Your task to perform on an android device: Go to wifi settings Image 0: 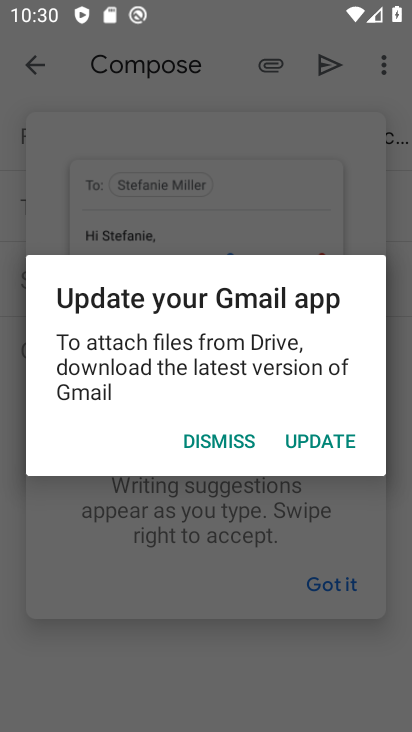
Step 0: click (195, 445)
Your task to perform on an android device: Go to wifi settings Image 1: 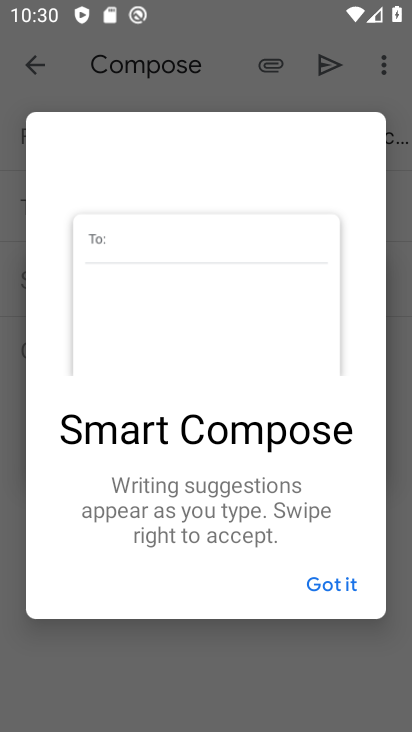
Step 1: click (335, 574)
Your task to perform on an android device: Go to wifi settings Image 2: 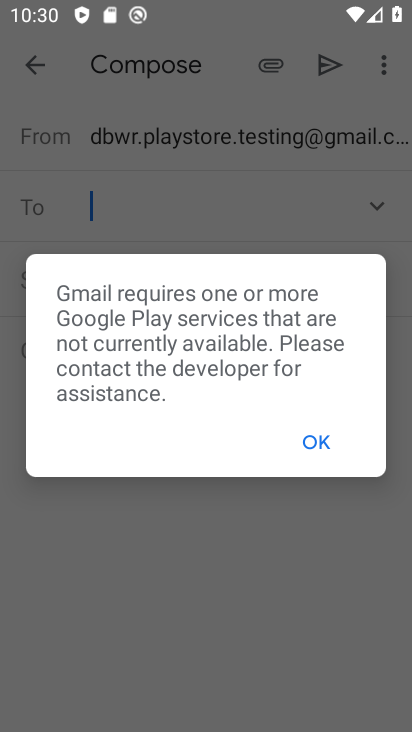
Step 2: click (309, 433)
Your task to perform on an android device: Go to wifi settings Image 3: 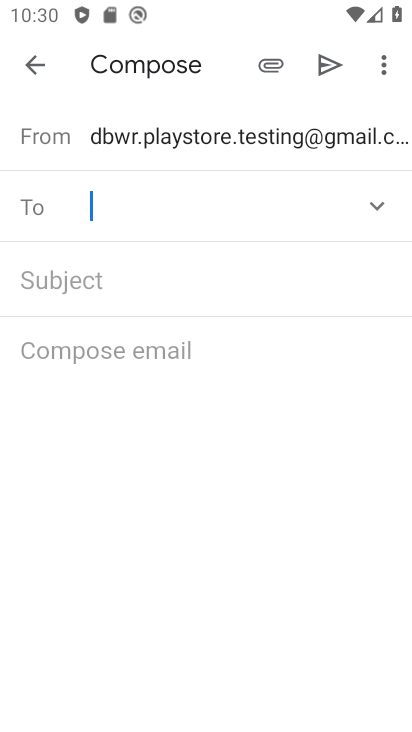
Step 3: click (35, 63)
Your task to perform on an android device: Go to wifi settings Image 4: 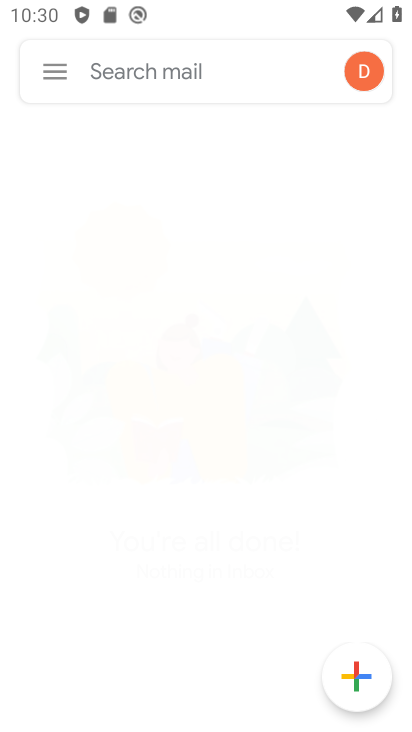
Step 4: click (35, 60)
Your task to perform on an android device: Go to wifi settings Image 5: 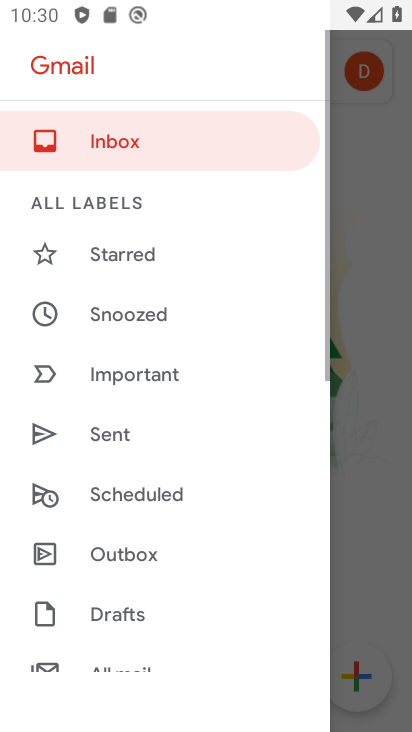
Step 5: press back button
Your task to perform on an android device: Go to wifi settings Image 6: 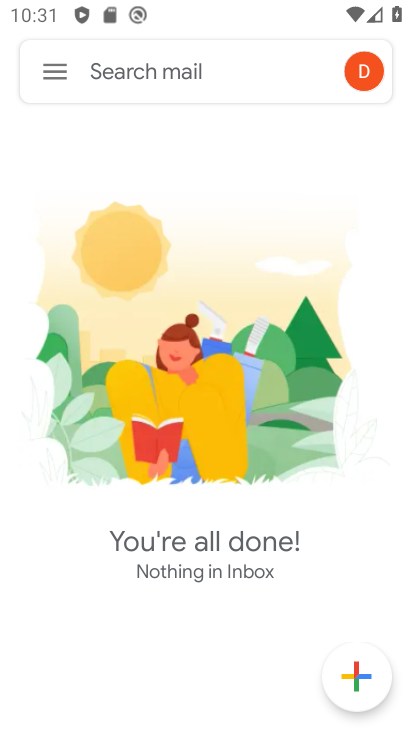
Step 6: press home button
Your task to perform on an android device: Go to wifi settings Image 7: 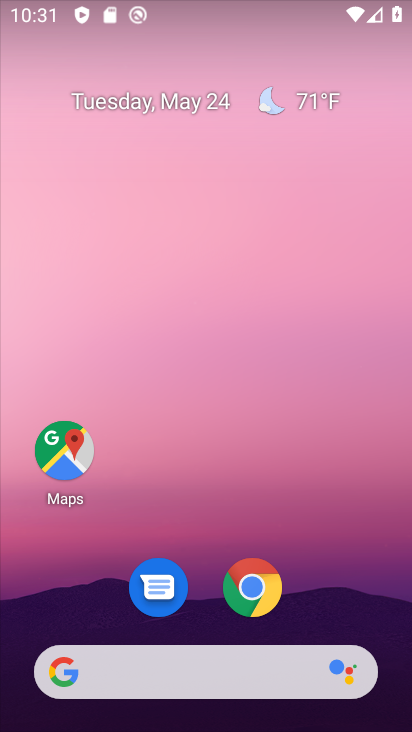
Step 7: drag from (240, 676) to (149, 55)
Your task to perform on an android device: Go to wifi settings Image 8: 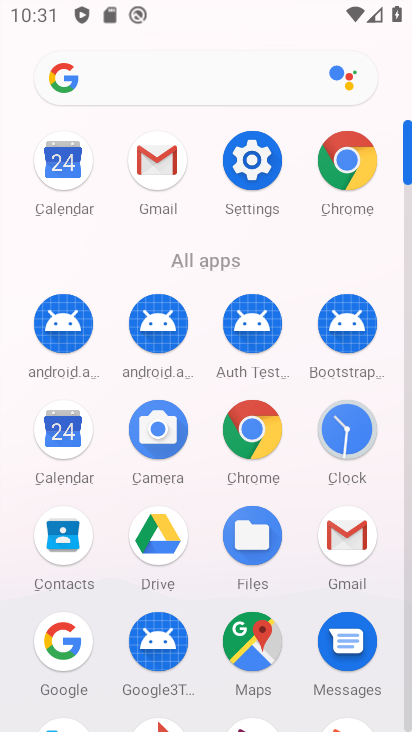
Step 8: click (256, 154)
Your task to perform on an android device: Go to wifi settings Image 9: 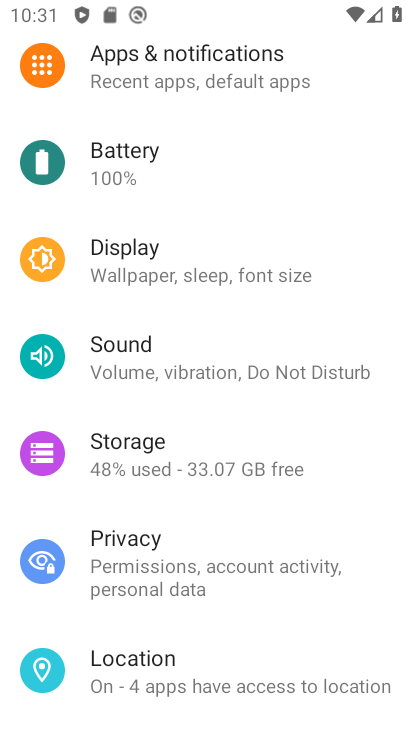
Step 9: drag from (148, 414) to (206, 703)
Your task to perform on an android device: Go to wifi settings Image 10: 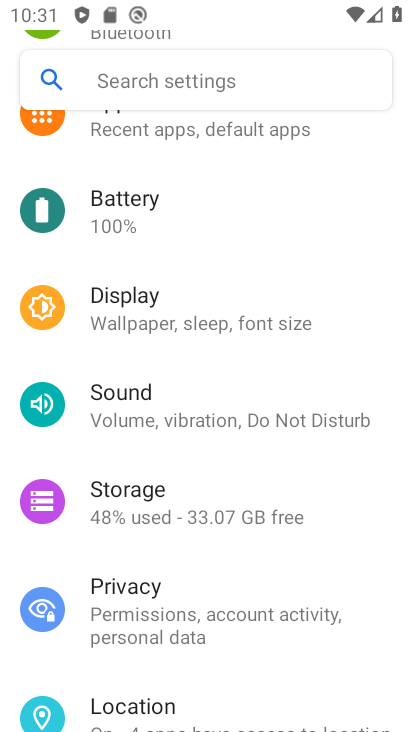
Step 10: drag from (182, 262) to (240, 593)
Your task to perform on an android device: Go to wifi settings Image 11: 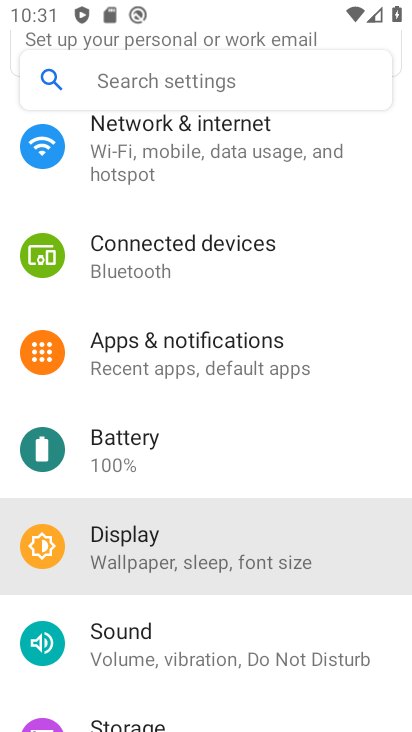
Step 11: drag from (151, 210) to (229, 676)
Your task to perform on an android device: Go to wifi settings Image 12: 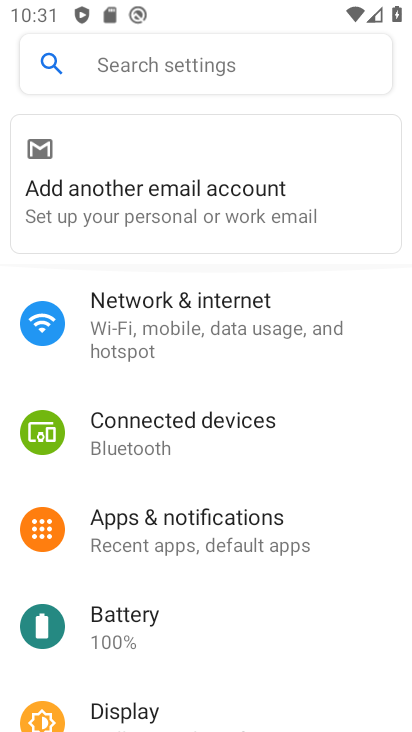
Step 12: drag from (225, 279) to (238, 670)
Your task to perform on an android device: Go to wifi settings Image 13: 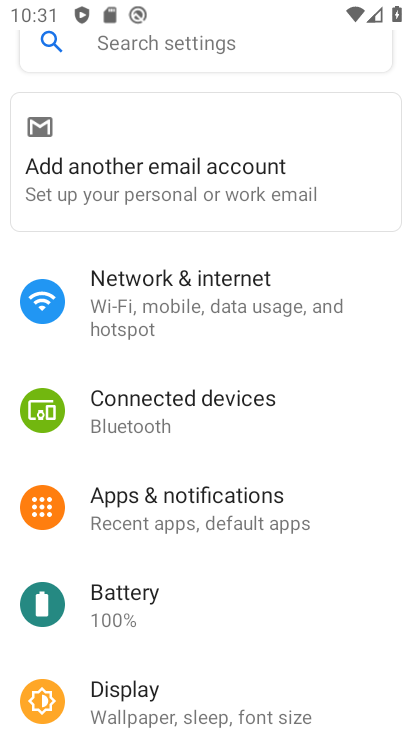
Step 13: click (211, 145)
Your task to perform on an android device: Go to wifi settings Image 14: 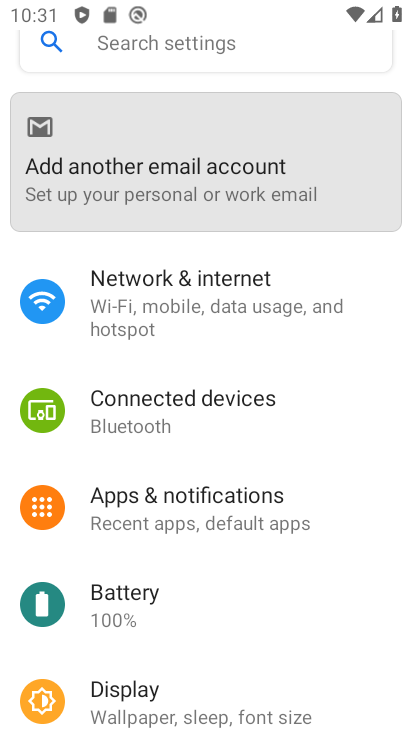
Step 14: click (211, 145)
Your task to perform on an android device: Go to wifi settings Image 15: 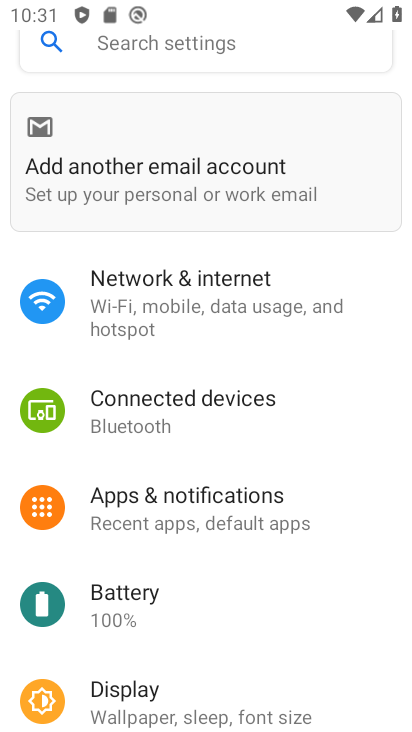
Step 15: click (195, 303)
Your task to perform on an android device: Go to wifi settings Image 16: 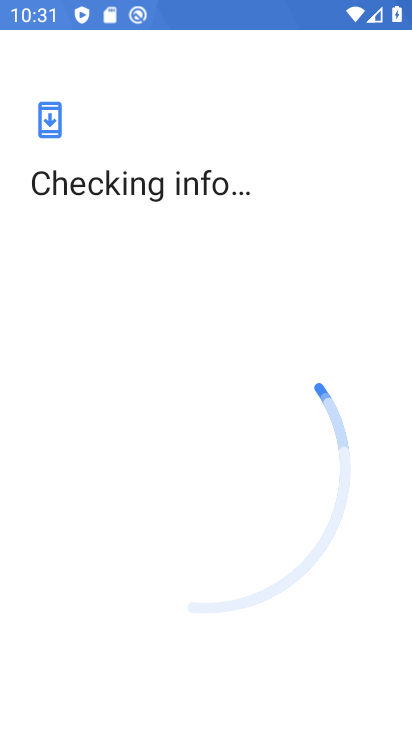
Step 16: press back button
Your task to perform on an android device: Go to wifi settings Image 17: 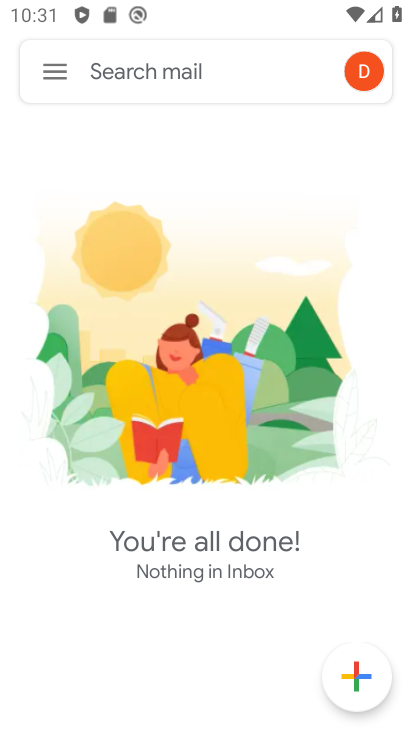
Step 17: click (59, 73)
Your task to perform on an android device: Go to wifi settings Image 18: 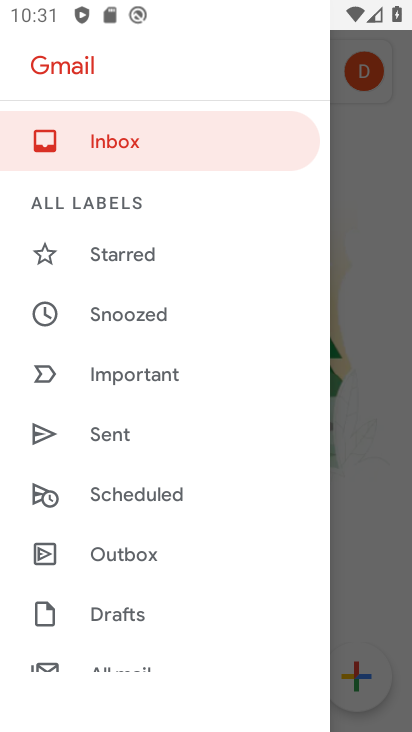
Step 18: drag from (160, 444) to (138, 195)
Your task to perform on an android device: Go to wifi settings Image 19: 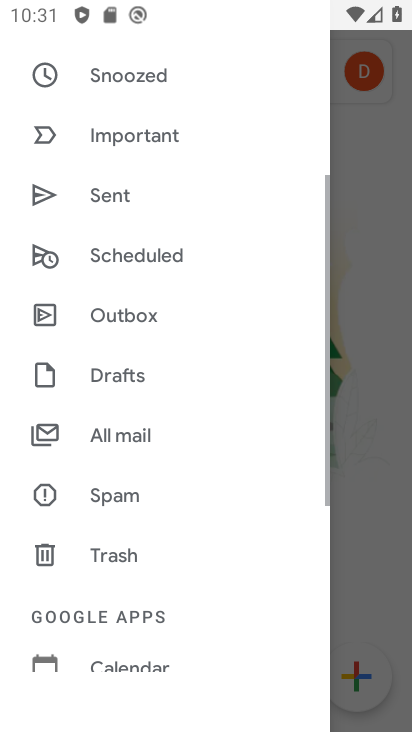
Step 19: drag from (143, 455) to (94, 218)
Your task to perform on an android device: Go to wifi settings Image 20: 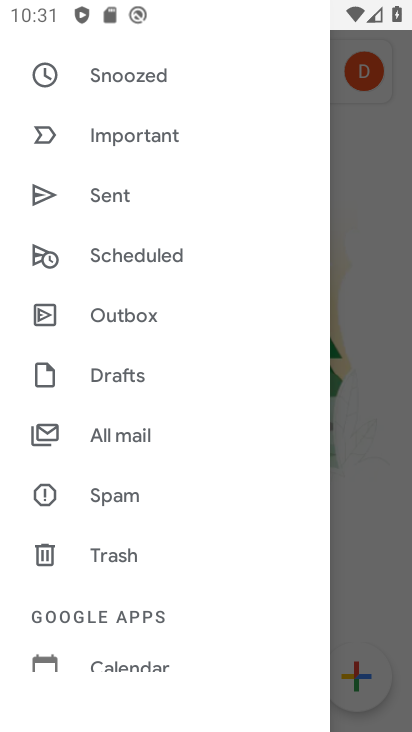
Step 20: drag from (123, 610) to (83, 221)
Your task to perform on an android device: Go to wifi settings Image 21: 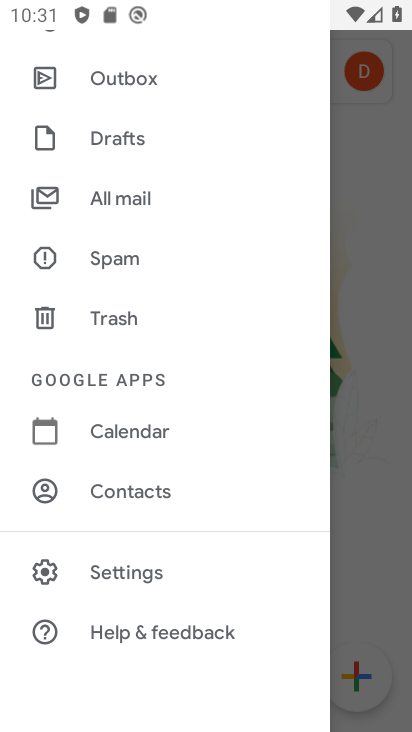
Step 21: press back button
Your task to perform on an android device: Go to wifi settings Image 22: 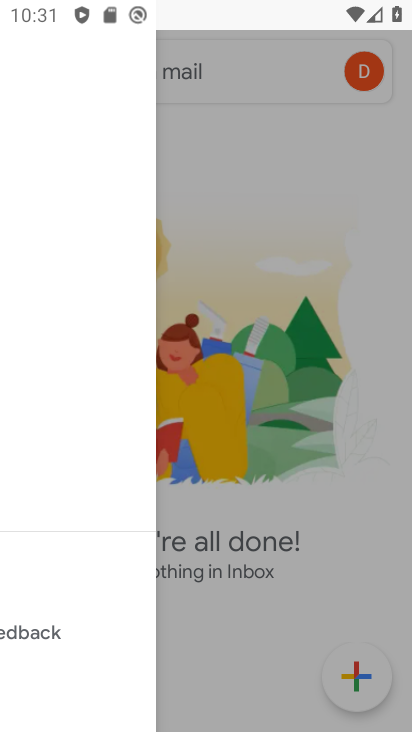
Step 22: press back button
Your task to perform on an android device: Go to wifi settings Image 23: 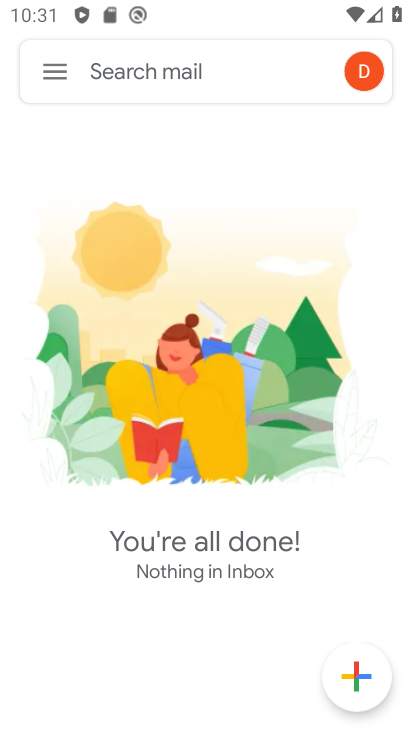
Step 23: press back button
Your task to perform on an android device: Go to wifi settings Image 24: 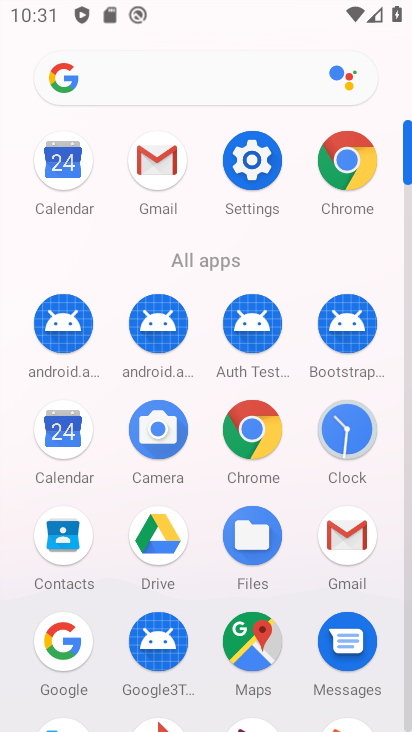
Step 24: press home button
Your task to perform on an android device: Go to wifi settings Image 25: 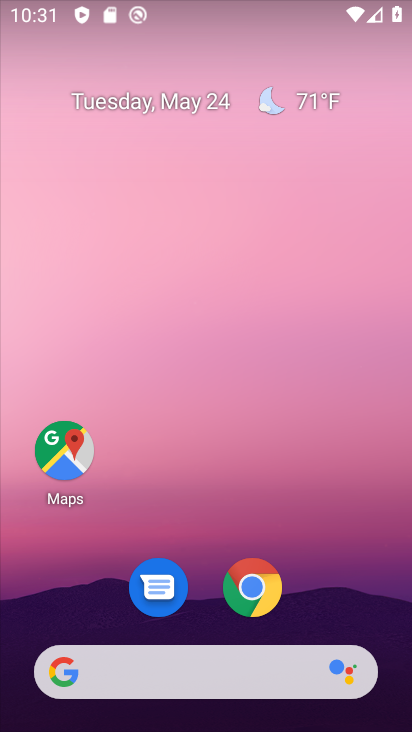
Step 25: drag from (284, 513) to (210, 115)
Your task to perform on an android device: Go to wifi settings Image 26: 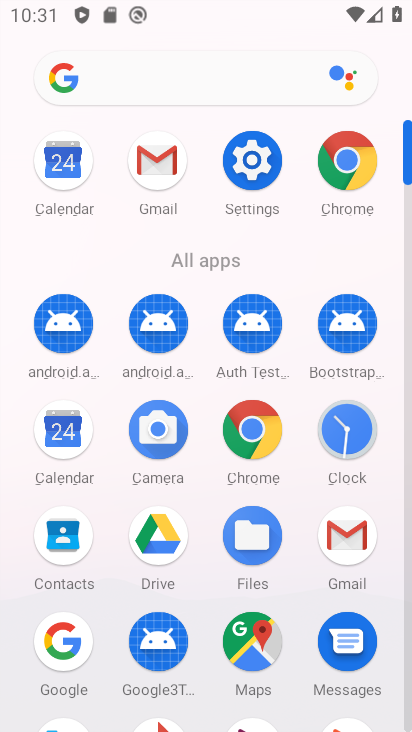
Step 26: click (247, 164)
Your task to perform on an android device: Go to wifi settings Image 27: 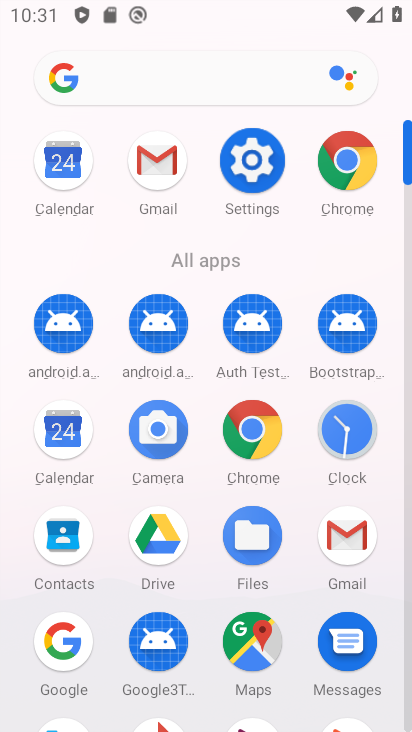
Step 27: click (247, 164)
Your task to perform on an android device: Go to wifi settings Image 28: 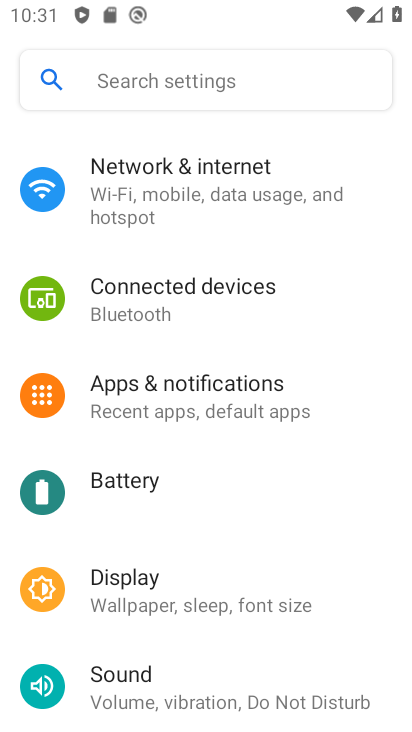
Step 28: click (250, 162)
Your task to perform on an android device: Go to wifi settings Image 29: 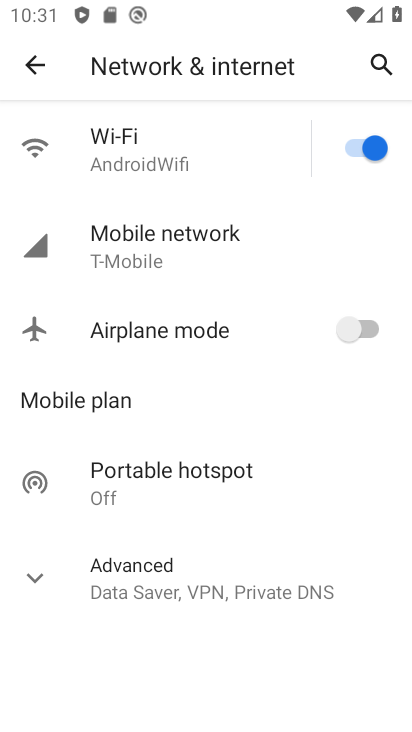
Step 29: task complete